Your task to perform on an android device: check battery use Image 0: 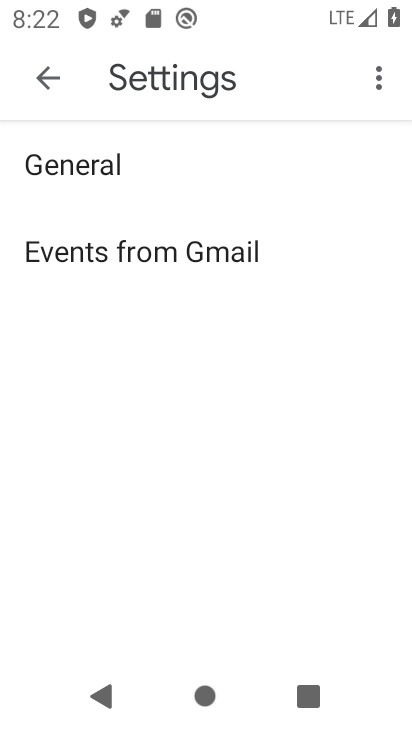
Step 0: press back button
Your task to perform on an android device: check battery use Image 1: 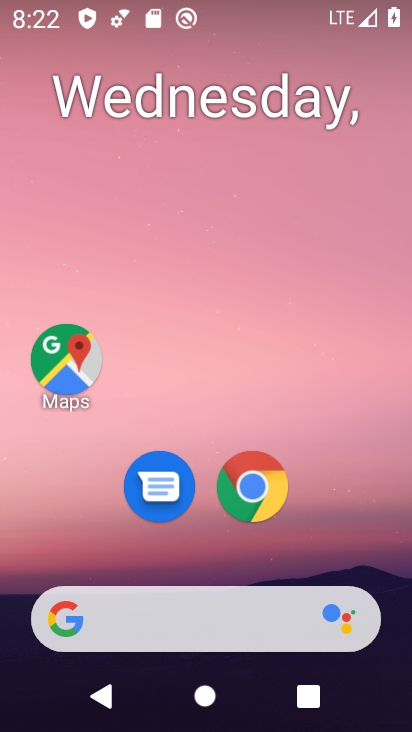
Step 1: drag from (194, 540) to (264, 0)
Your task to perform on an android device: check battery use Image 2: 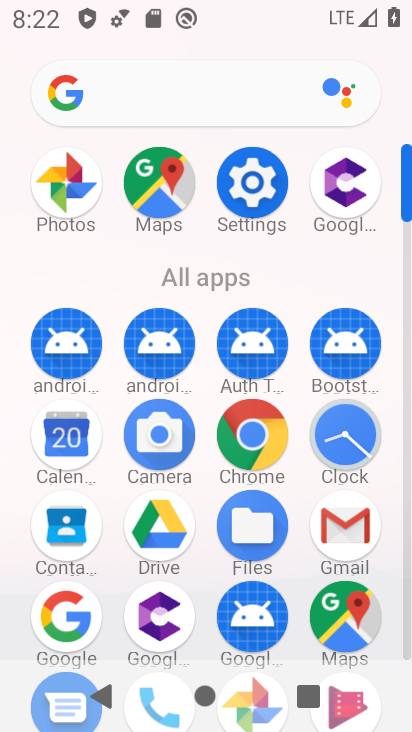
Step 2: click (269, 203)
Your task to perform on an android device: check battery use Image 3: 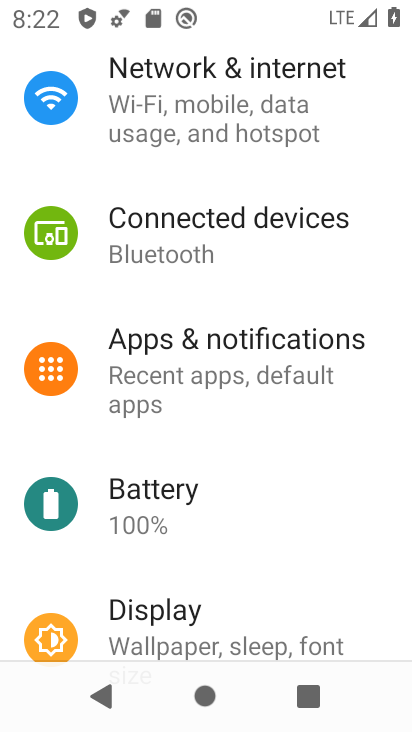
Step 3: click (163, 501)
Your task to perform on an android device: check battery use Image 4: 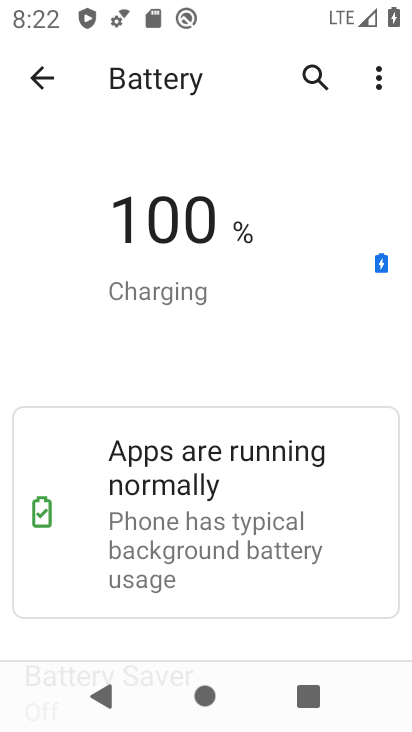
Step 4: click (374, 74)
Your task to perform on an android device: check battery use Image 5: 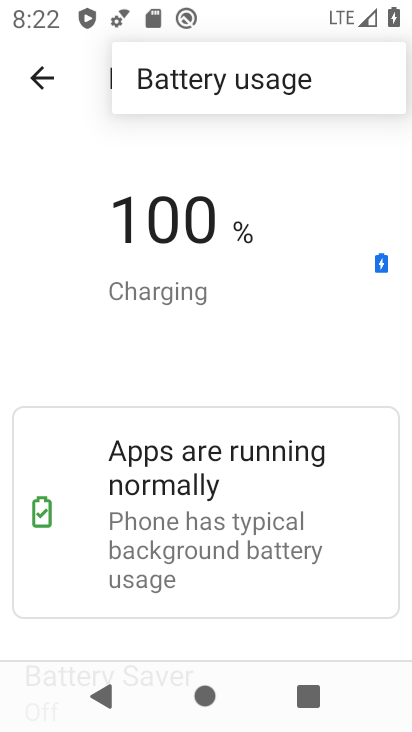
Step 5: click (258, 88)
Your task to perform on an android device: check battery use Image 6: 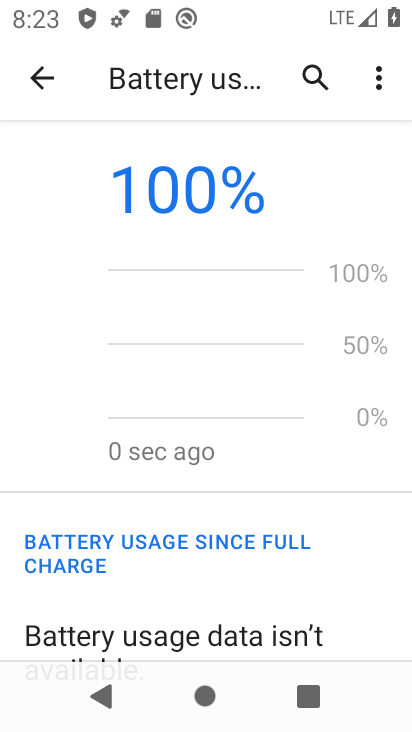
Step 6: task complete